Your task to perform on an android device: Search for "logitech g502" on target.com, select the first entry, and add it to the cart. Image 0: 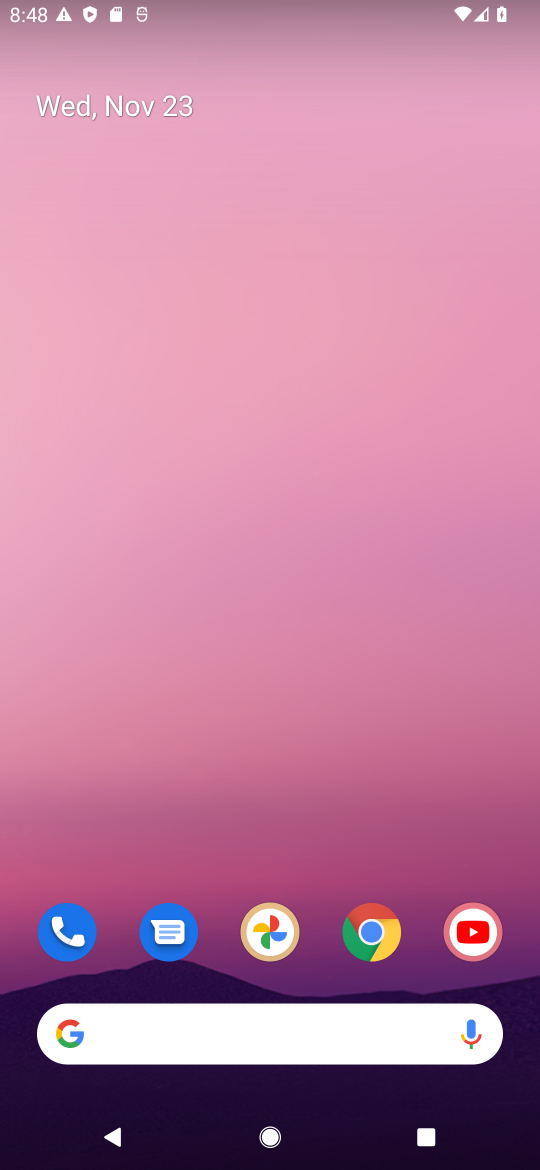
Step 0: click (364, 947)
Your task to perform on an android device: Search for "logitech g502" on target.com, select the first entry, and add it to the cart. Image 1: 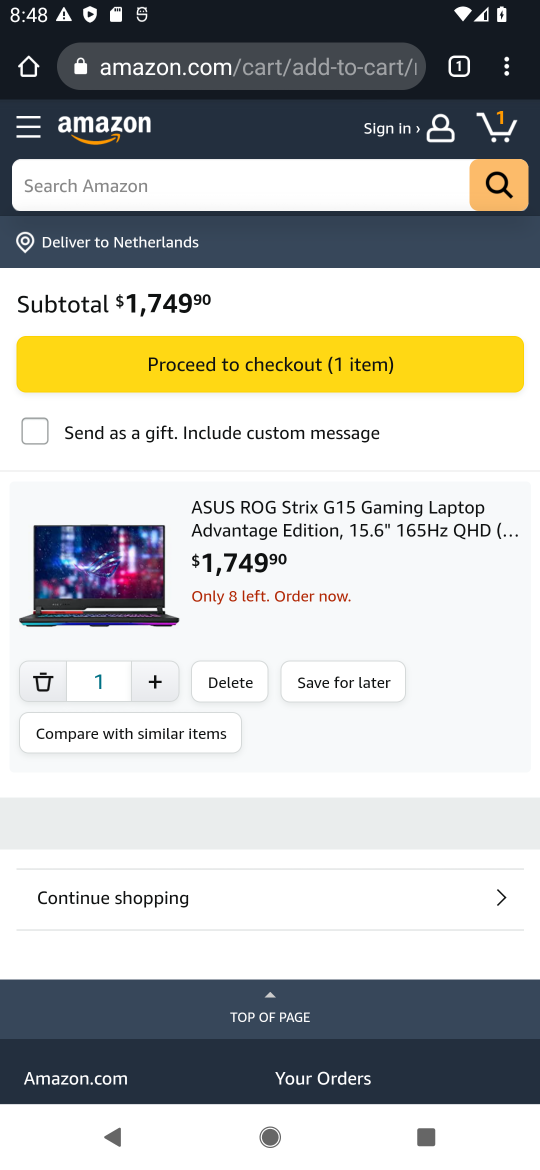
Step 1: click (230, 69)
Your task to perform on an android device: Search for "logitech g502" on target.com, select the first entry, and add it to the cart. Image 2: 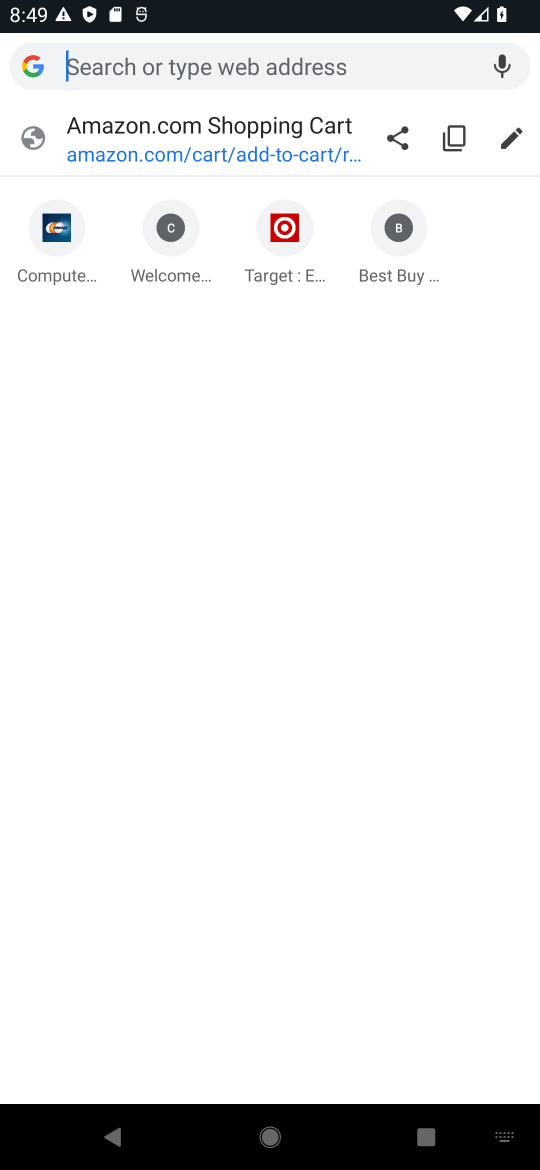
Step 2: type "target.com"
Your task to perform on an android device: Search for "logitech g502" on target.com, select the first entry, and add it to the cart. Image 3: 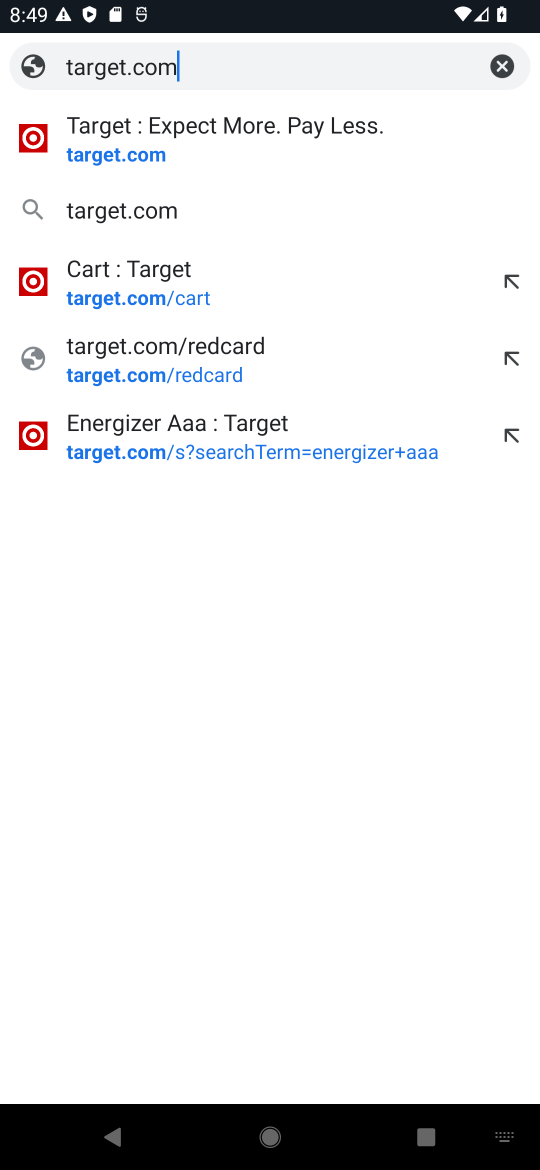
Step 3: click (175, 135)
Your task to perform on an android device: Search for "logitech g502" on target.com, select the first entry, and add it to the cart. Image 4: 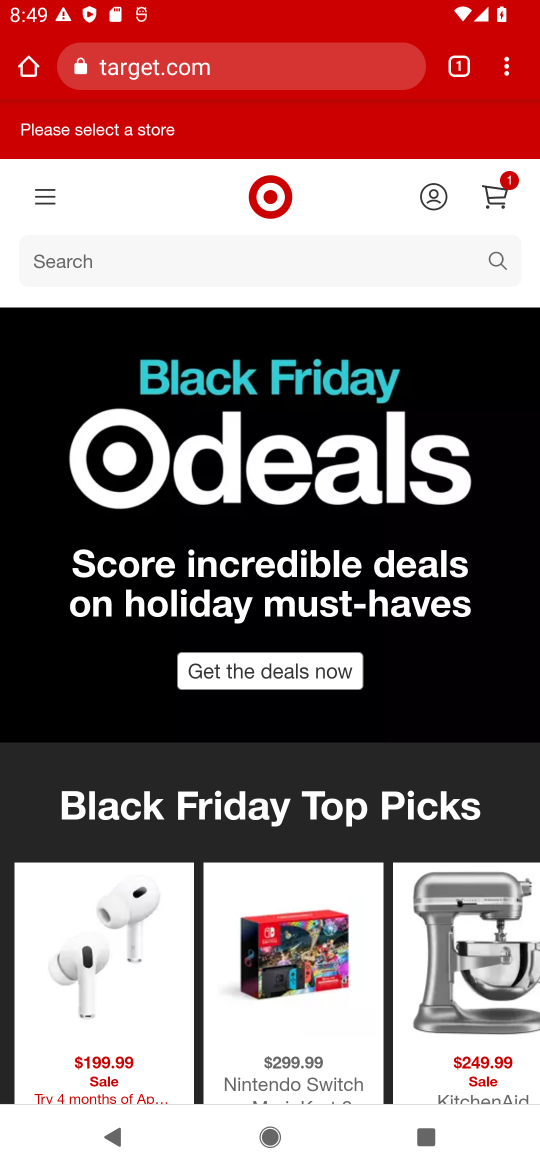
Step 4: click (245, 245)
Your task to perform on an android device: Search for "logitech g502" on target.com, select the first entry, and add it to the cart. Image 5: 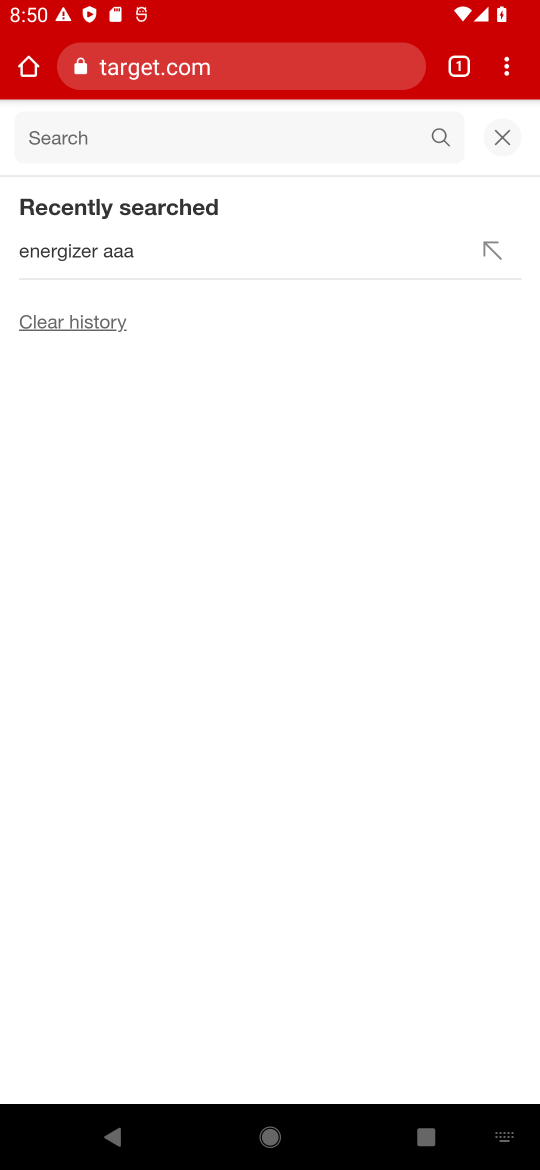
Step 5: type "logitech g502"
Your task to perform on an android device: Search for "logitech g502" on target.com, select the first entry, and add it to the cart. Image 6: 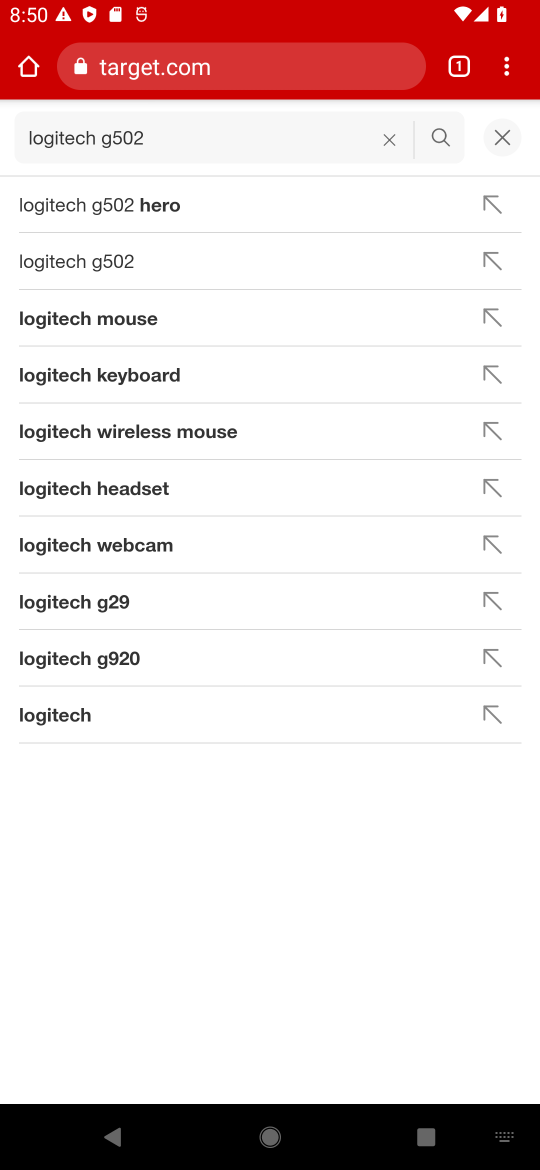
Step 6: press enter
Your task to perform on an android device: Search for "logitech g502" on target.com, select the first entry, and add it to the cart. Image 7: 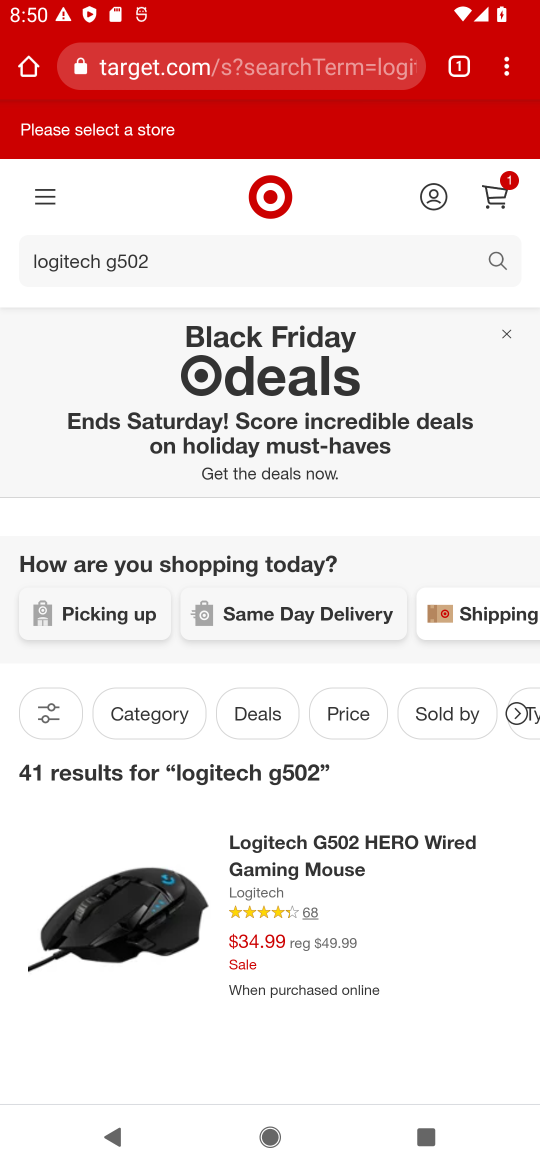
Step 7: click (189, 898)
Your task to perform on an android device: Search for "logitech g502" on target.com, select the first entry, and add it to the cart. Image 8: 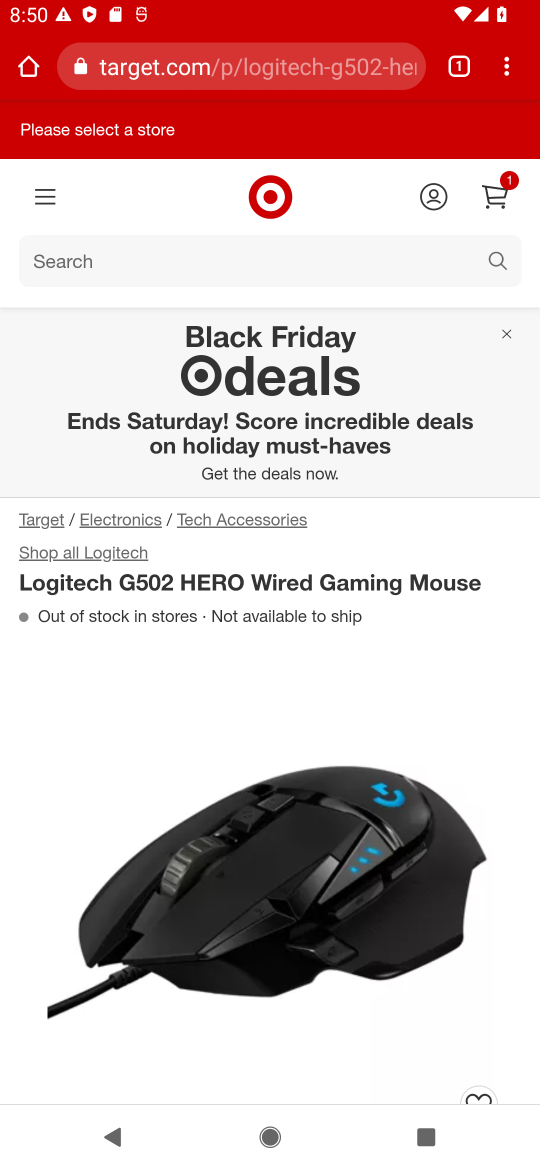
Step 8: drag from (365, 845) to (274, 629)
Your task to perform on an android device: Search for "logitech g502" on target.com, select the first entry, and add it to the cart. Image 9: 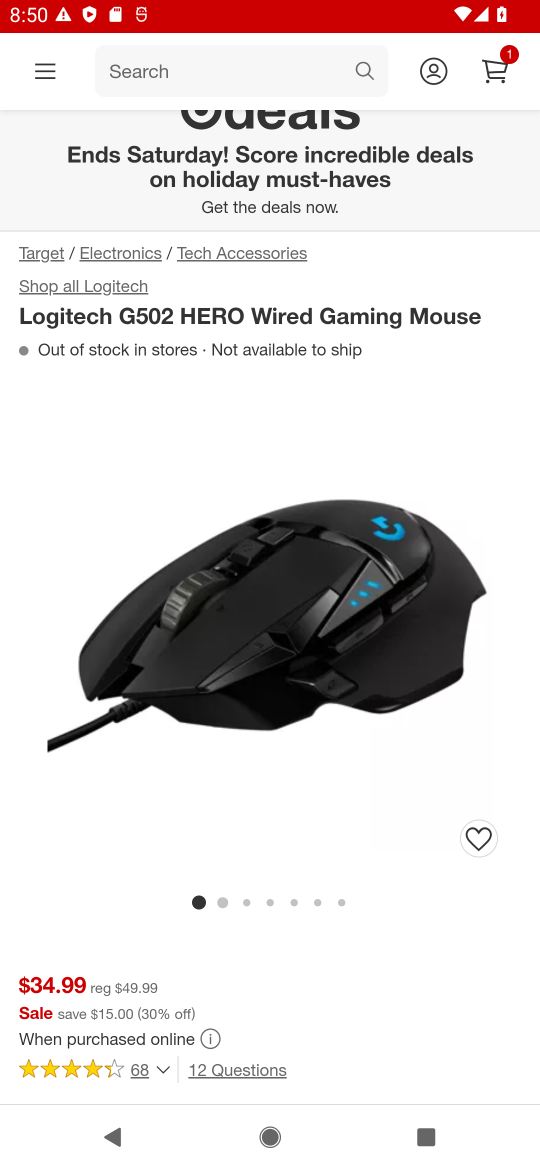
Step 9: drag from (240, 800) to (189, 577)
Your task to perform on an android device: Search for "logitech g502" on target.com, select the first entry, and add it to the cart. Image 10: 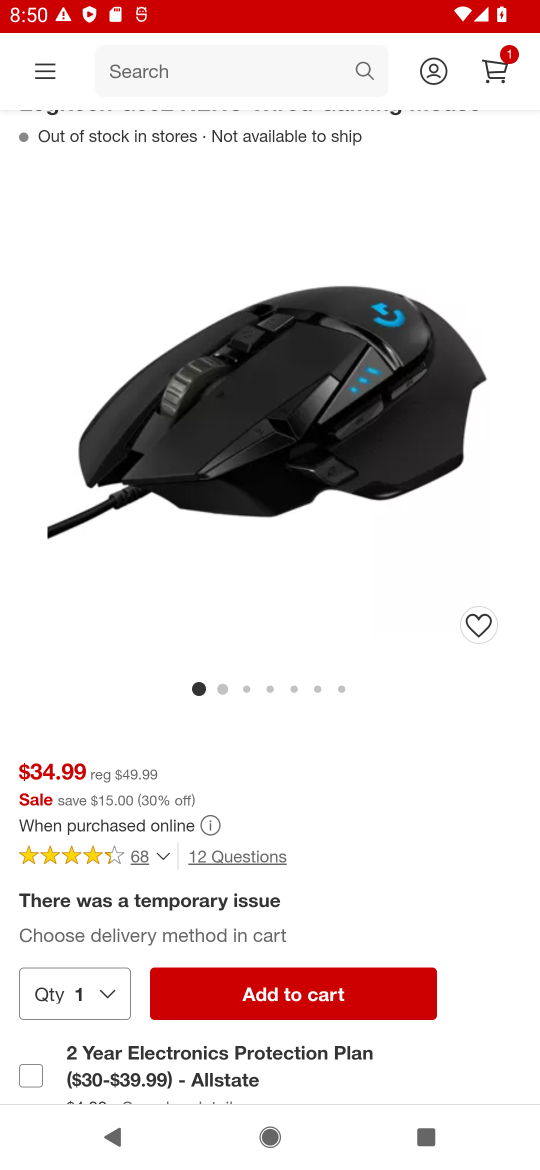
Step 10: click (305, 988)
Your task to perform on an android device: Search for "logitech g502" on target.com, select the first entry, and add it to the cart. Image 11: 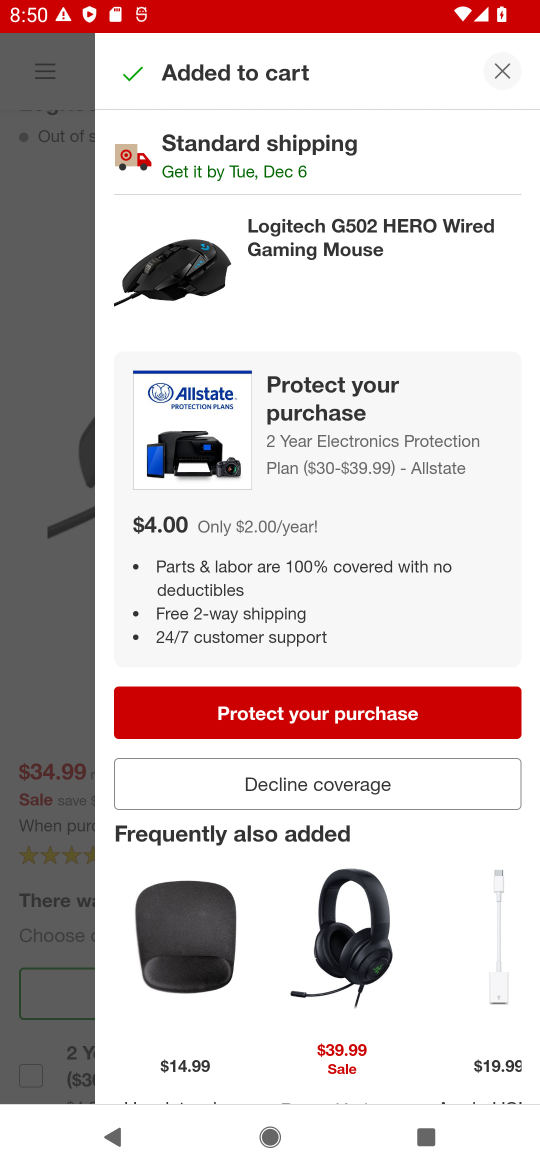
Step 11: task complete